Your task to perform on an android device: Open calendar and show me the third week of next month Image 0: 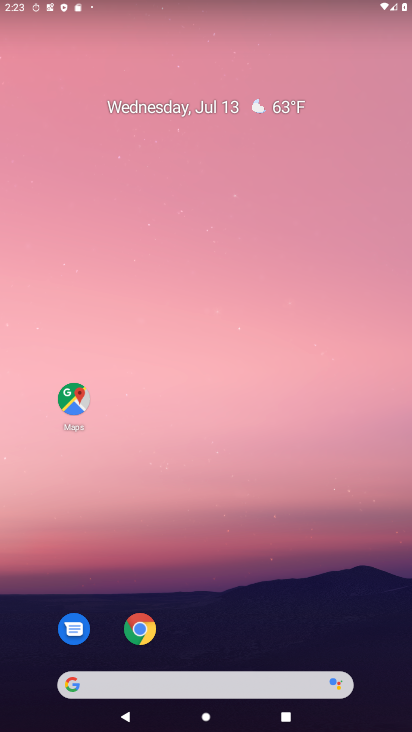
Step 0: drag from (219, 654) to (271, 130)
Your task to perform on an android device: Open calendar and show me the third week of next month Image 1: 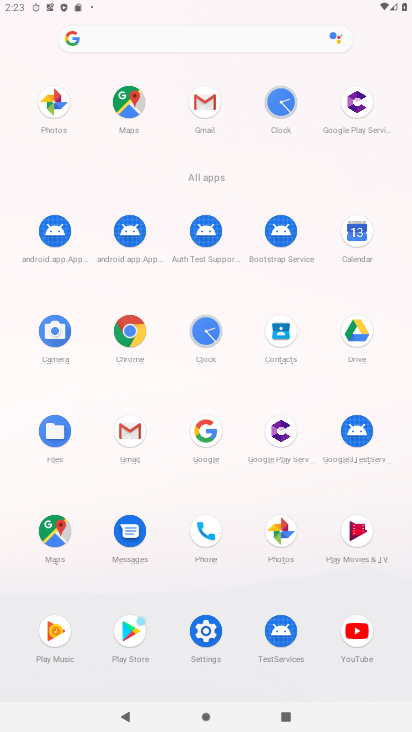
Step 1: click (361, 245)
Your task to perform on an android device: Open calendar and show me the third week of next month Image 2: 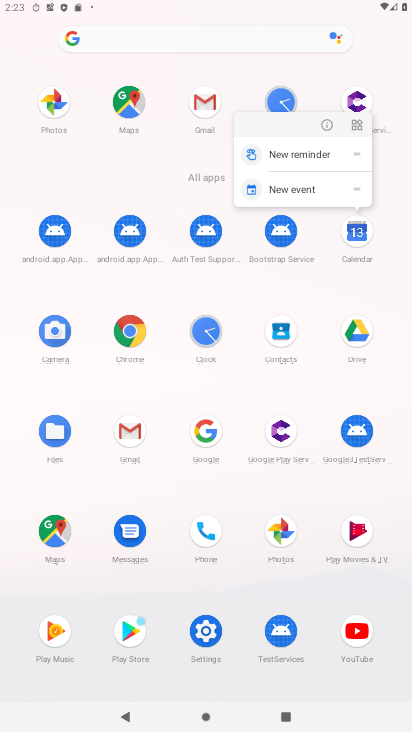
Step 2: click (324, 127)
Your task to perform on an android device: Open calendar and show me the third week of next month Image 3: 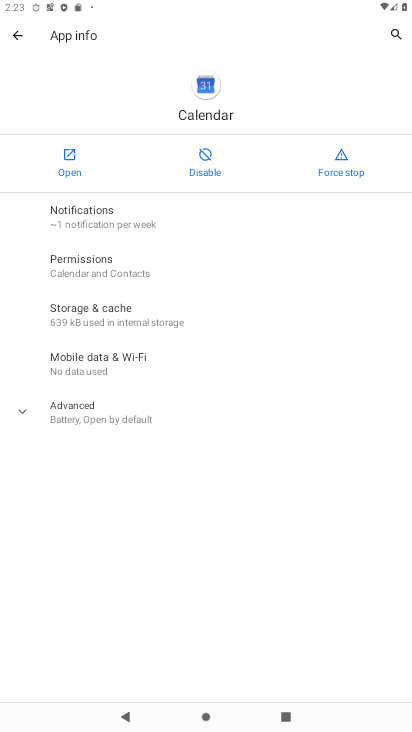
Step 3: click (60, 155)
Your task to perform on an android device: Open calendar and show me the third week of next month Image 4: 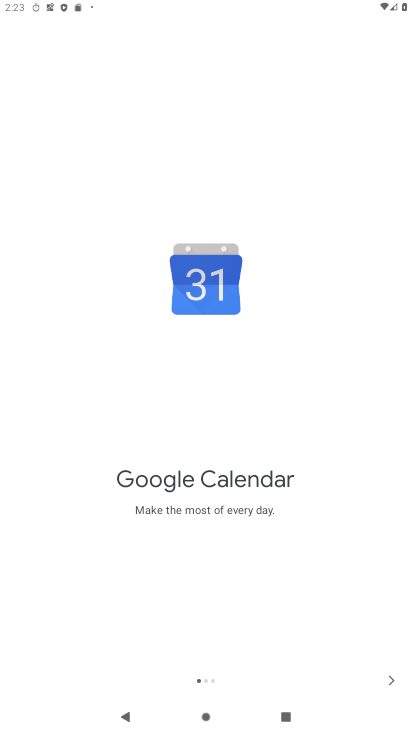
Step 4: click (387, 680)
Your task to perform on an android device: Open calendar and show me the third week of next month Image 5: 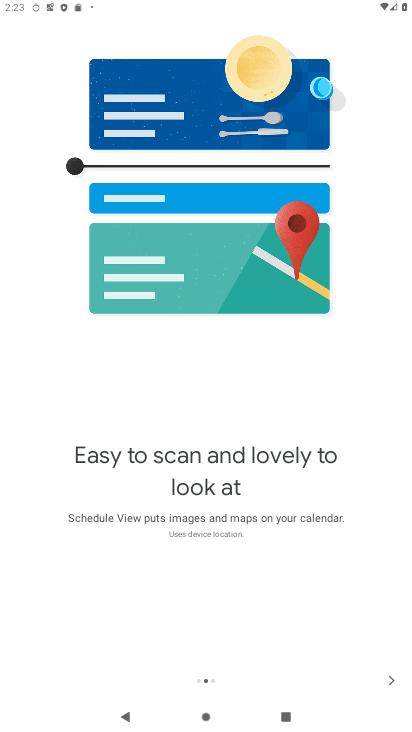
Step 5: click (390, 681)
Your task to perform on an android device: Open calendar and show me the third week of next month Image 6: 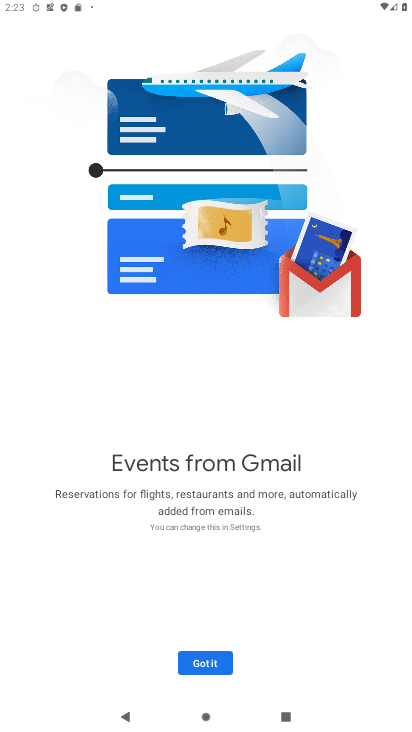
Step 6: click (220, 657)
Your task to perform on an android device: Open calendar and show me the third week of next month Image 7: 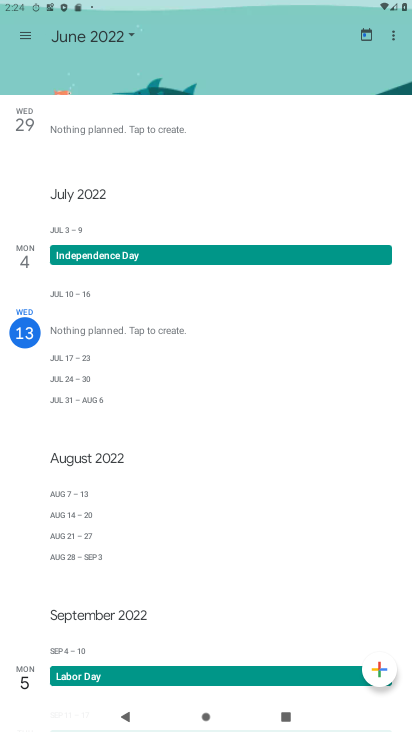
Step 7: click (111, 36)
Your task to perform on an android device: Open calendar and show me the third week of next month Image 8: 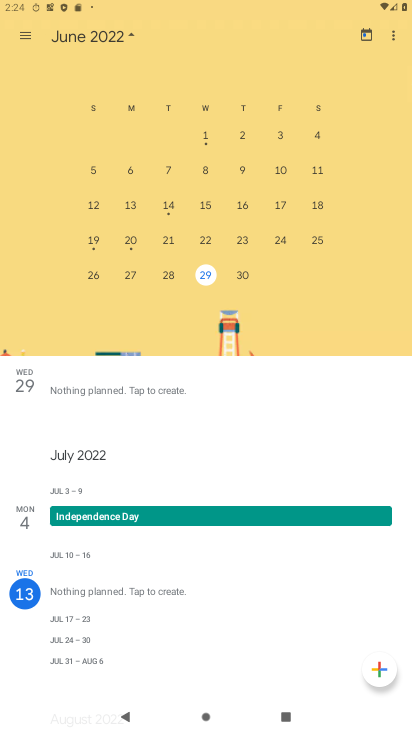
Step 8: drag from (307, 220) to (14, 212)
Your task to perform on an android device: Open calendar and show me the third week of next month Image 9: 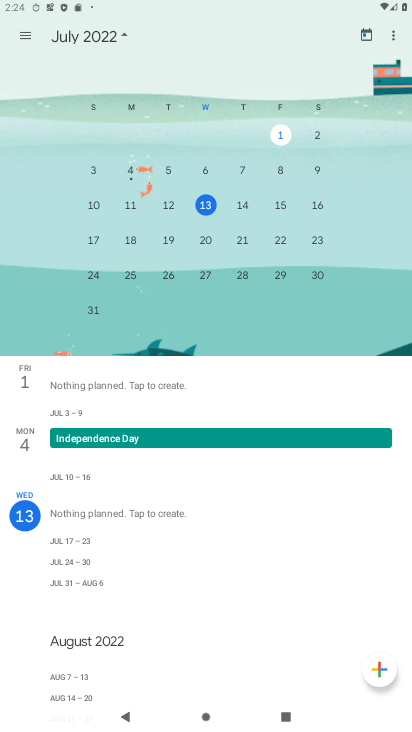
Step 9: drag from (334, 202) to (0, 205)
Your task to perform on an android device: Open calendar and show me the third week of next month Image 10: 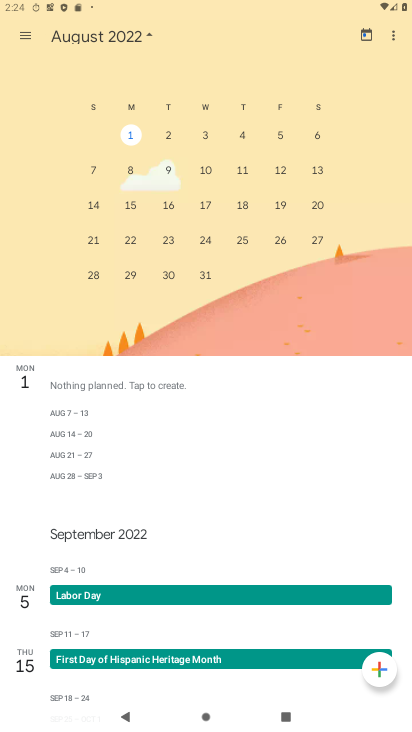
Step 10: click (244, 205)
Your task to perform on an android device: Open calendar and show me the third week of next month Image 11: 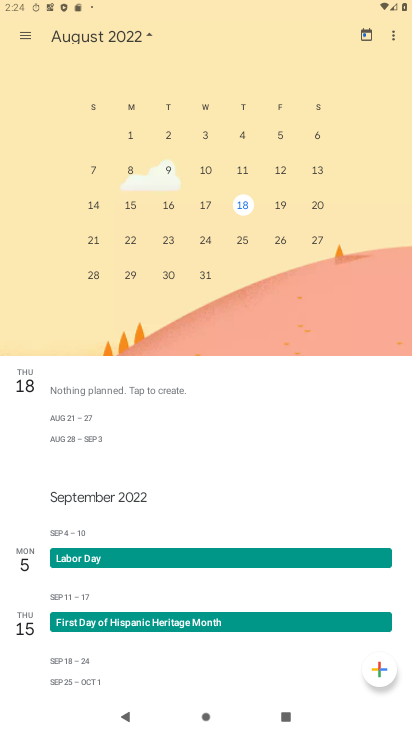
Step 11: task complete